Your task to perform on an android device: change the upload size in google photos Image 0: 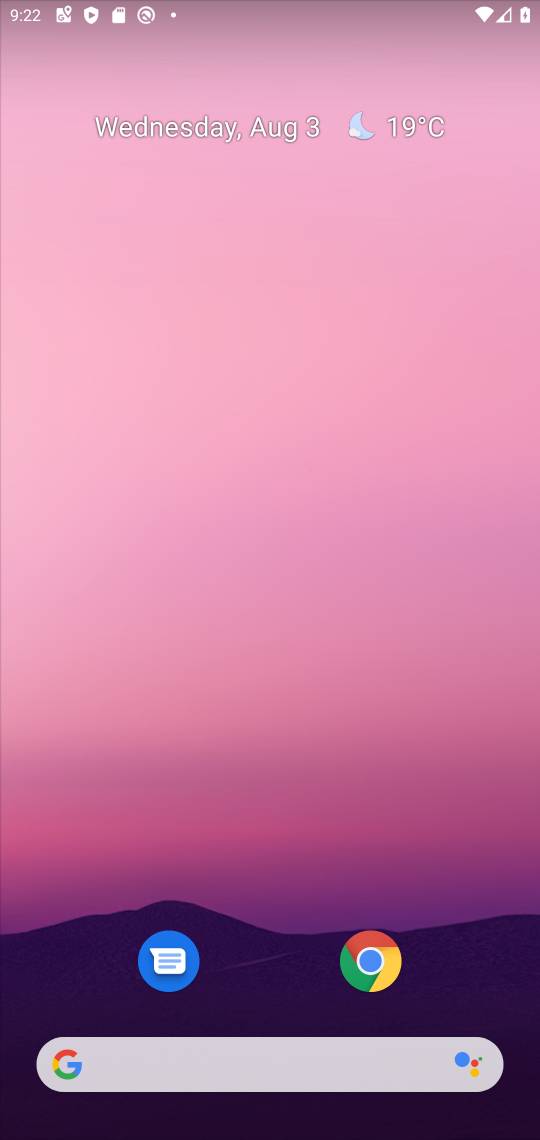
Step 0: drag from (324, 1012) to (232, 152)
Your task to perform on an android device: change the upload size in google photos Image 1: 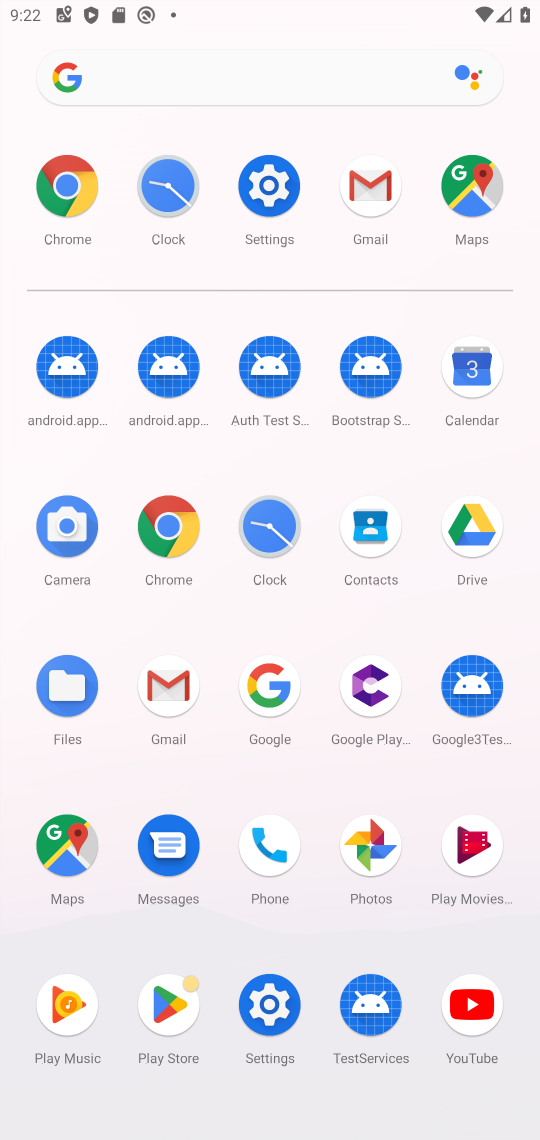
Step 1: click (350, 843)
Your task to perform on an android device: change the upload size in google photos Image 2: 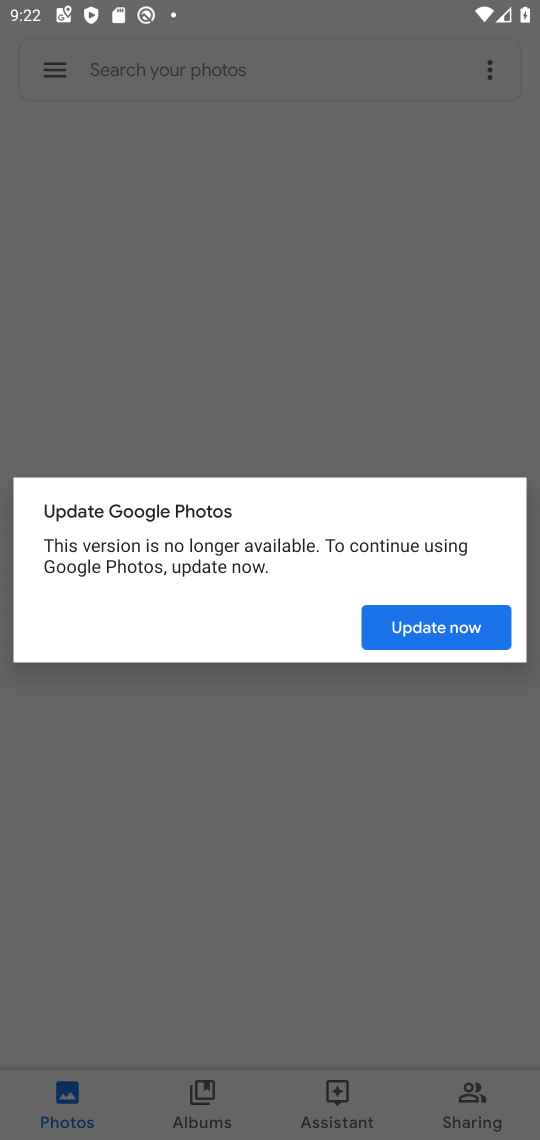
Step 2: click (32, 77)
Your task to perform on an android device: change the upload size in google photos Image 3: 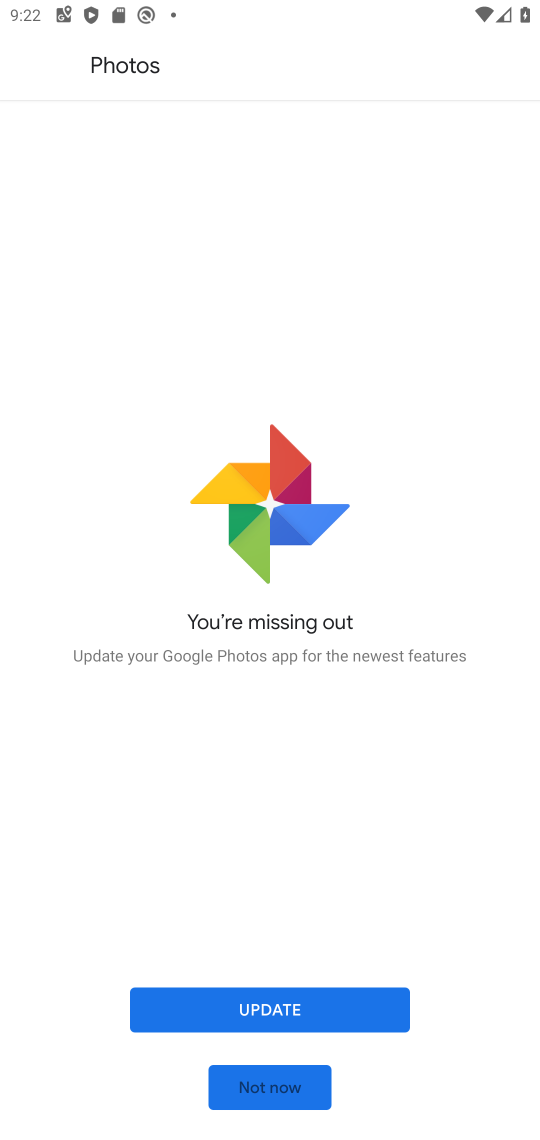
Step 3: click (280, 1073)
Your task to perform on an android device: change the upload size in google photos Image 4: 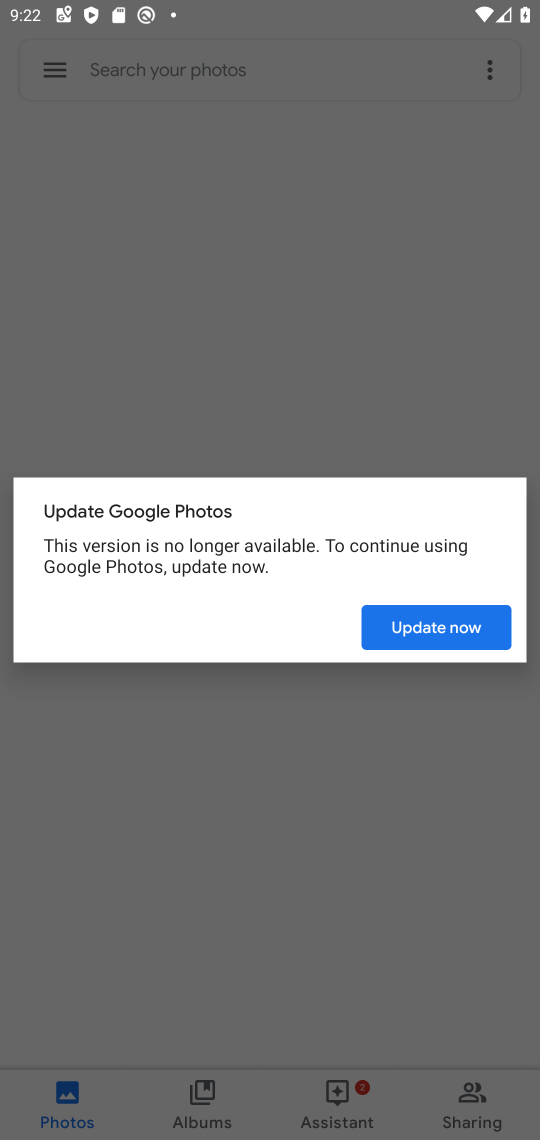
Step 4: click (348, 797)
Your task to perform on an android device: change the upload size in google photos Image 5: 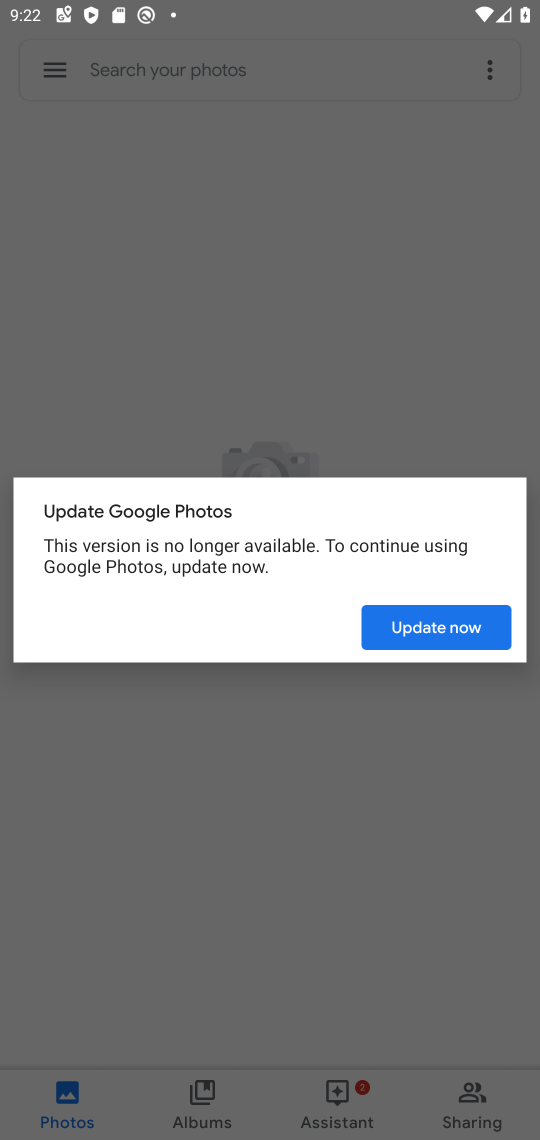
Step 5: press back button
Your task to perform on an android device: change the upload size in google photos Image 6: 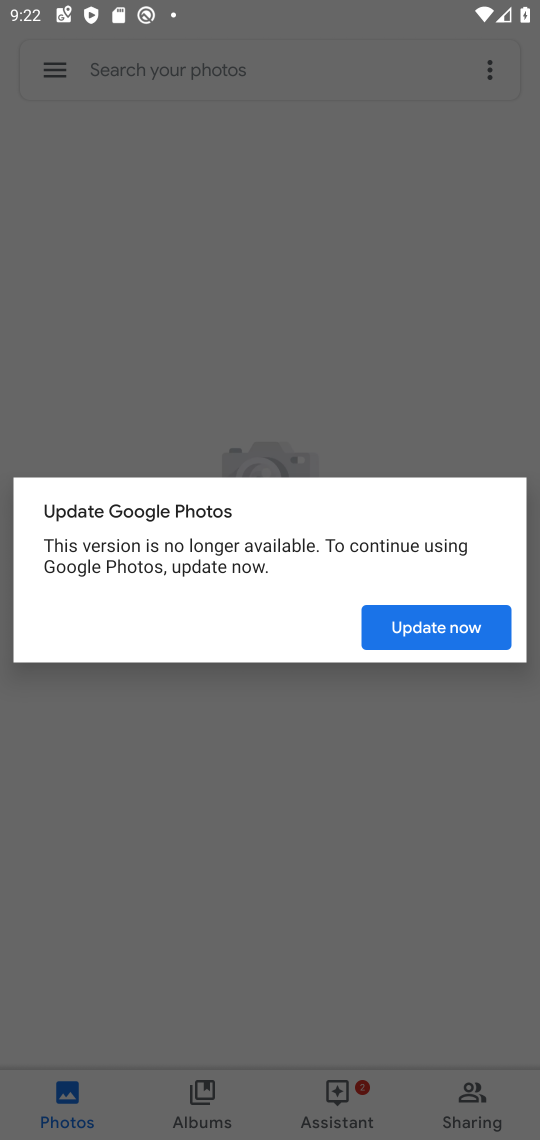
Step 6: click (393, 640)
Your task to perform on an android device: change the upload size in google photos Image 7: 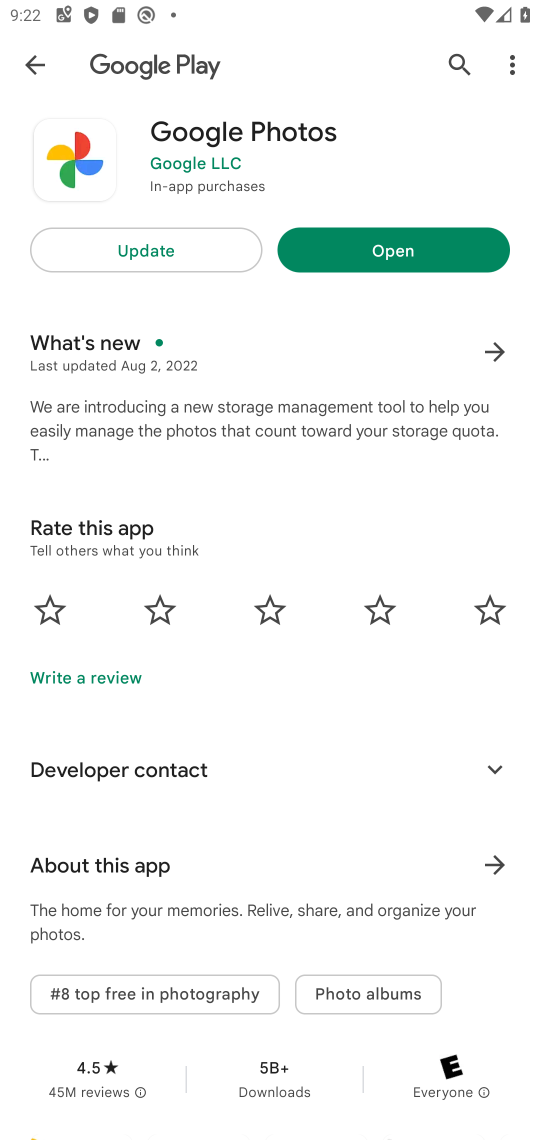
Step 7: click (307, 247)
Your task to perform on an android device: change the upload size in google photos Image 8: 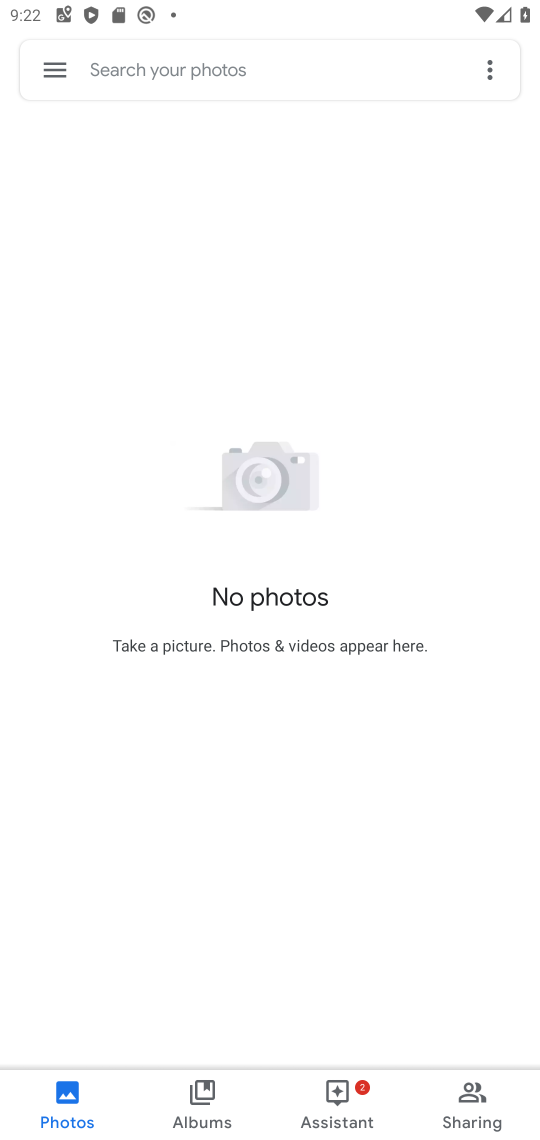
Step 8: click (48, 64)
Your task to perform on an android device: change the upload size in google photos Image 9: 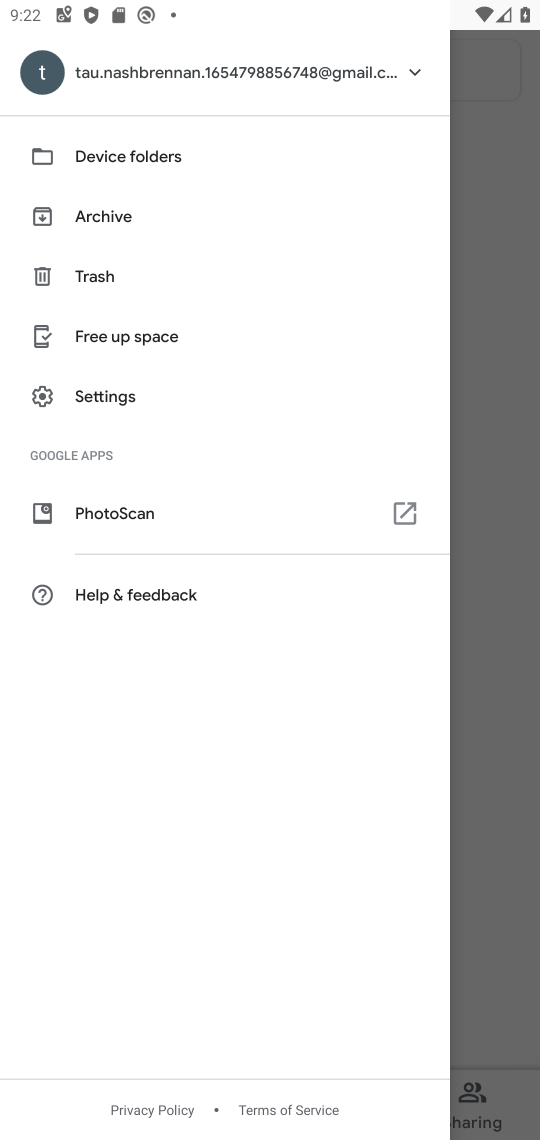
Step 9: click (92, 397)
Your task to perform on an android device: change the upload size in google photos Image 10: 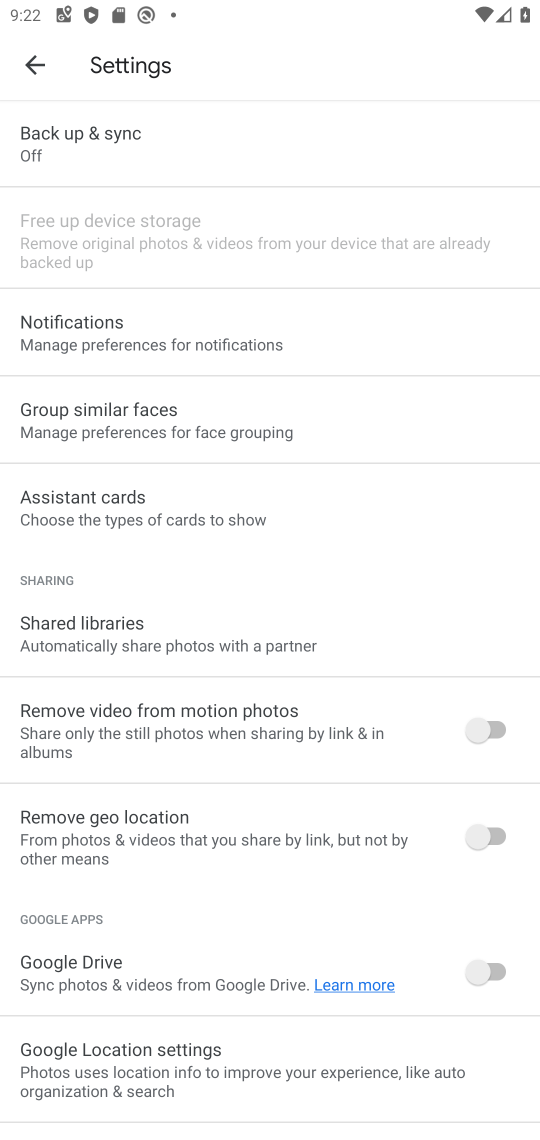
Step 10: click (87, 135)
Your task to perform on an android device: change the upload size in google photos Image 11: 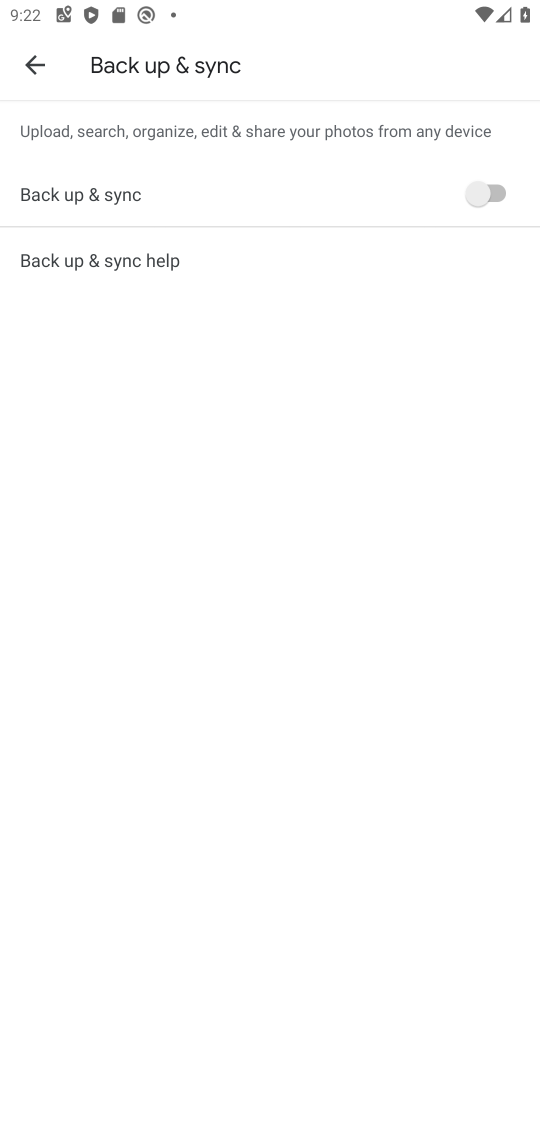
Step 11: click (104, 202)
Your task to perform on an android device: change the upload size in google photos Image 12: 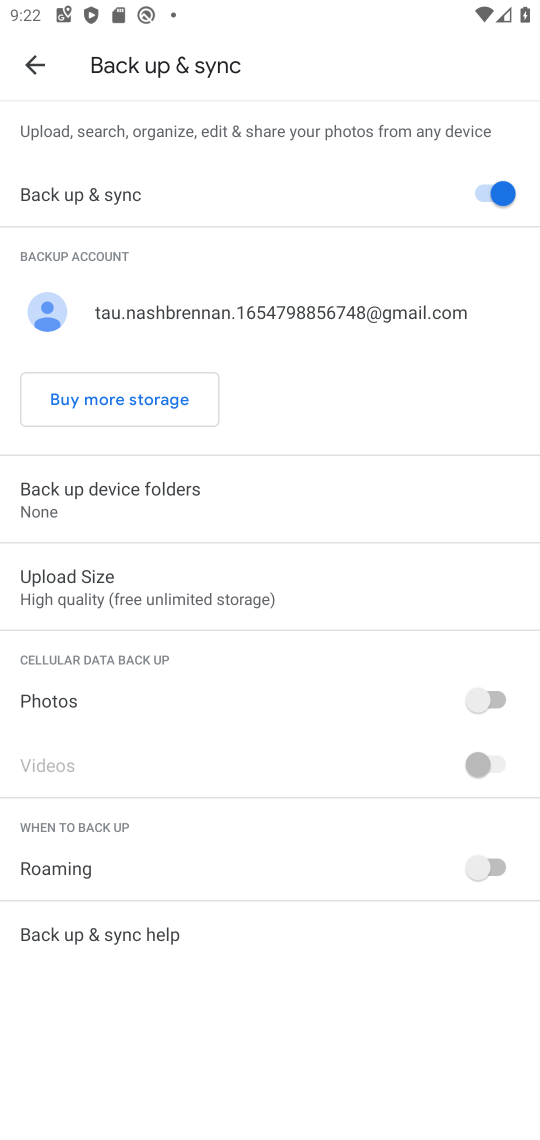
Step 12: click (73, 582)
Your task to perform on an android device: change the upload size in google photos Image 13: 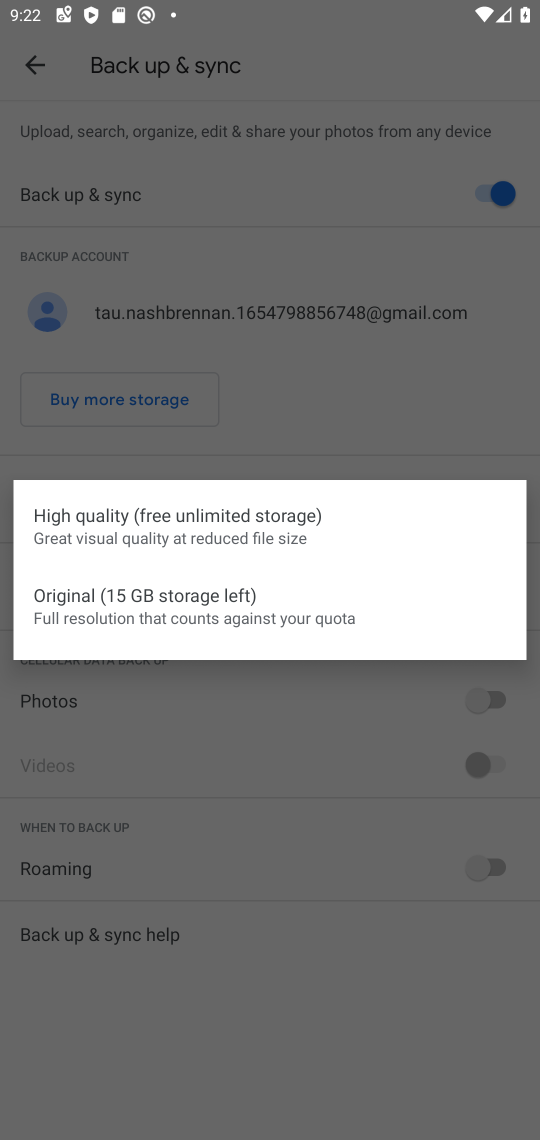
Step 13: click (99, 594)
Your task to perform on an android device: change the upload size in google photos Image 14: 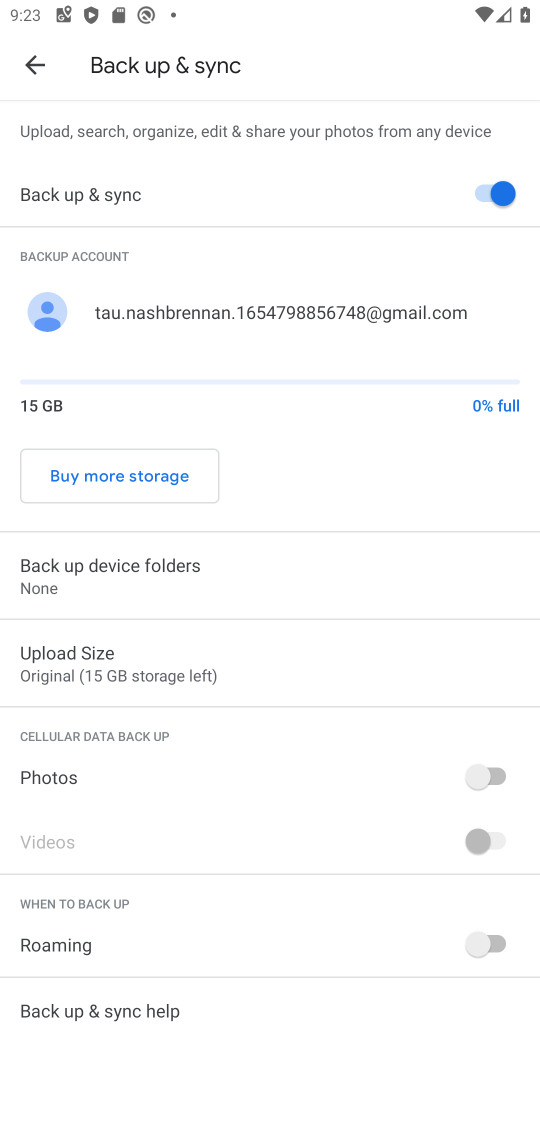
Step 14: task complete